Your task to perform on an android device: turn off notifications settings in the gmail app Image 0: 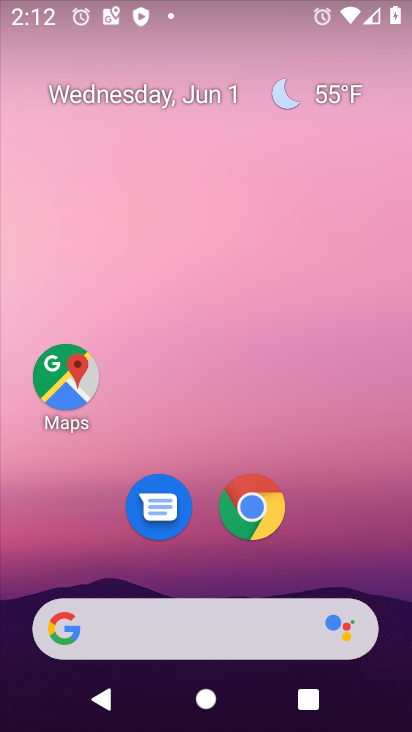
Step 0: press home button
Your task to perform on an android device: turn off notifications settings in the gmail app Image 1: 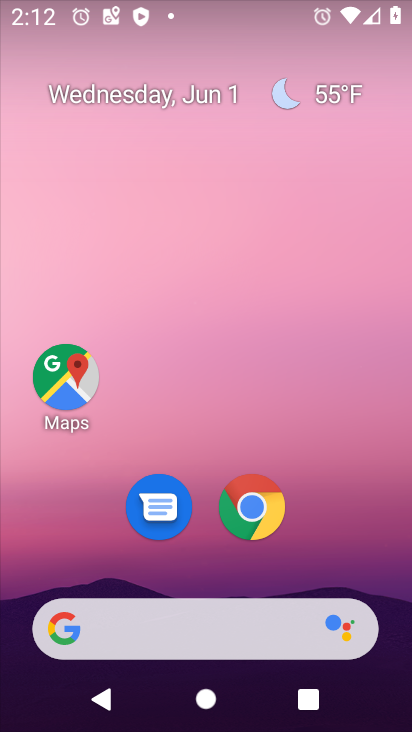
Step 1: drag from (371, 586) to (335, 3)
Your task to perform on an android device: turn off notifications settings in the gmail app Image 2: 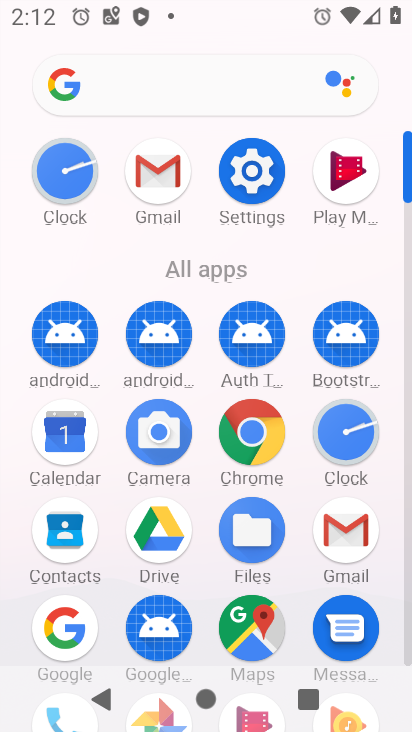
Step 2: click (159, 178)
Your task to perform on an android device: turn off notifications settings in the gmail app Image 3: 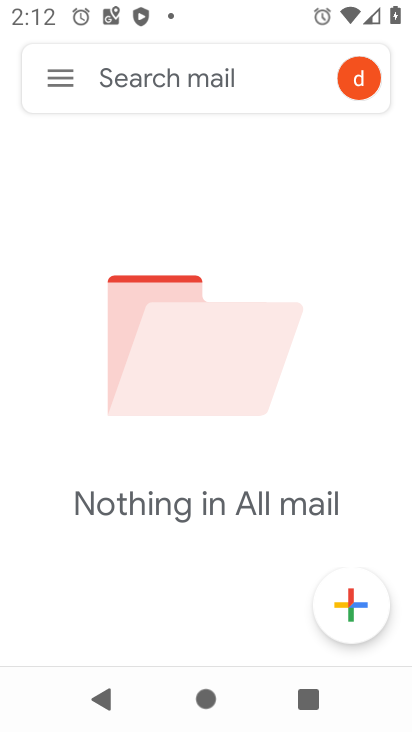
Step 3: click (57, 80)
Your task to perform on an android device: turn off notifications settings in the gmail app Image 4: 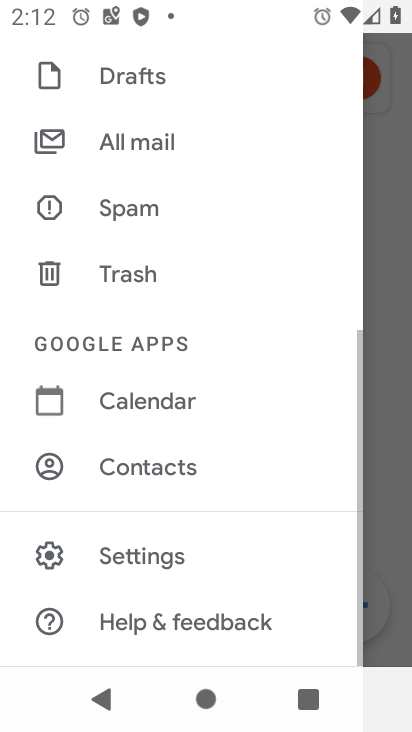
Step 4: click (163, 563)
Your task to perform on an android device: turn off notifications settings in the gmail app Image 5: 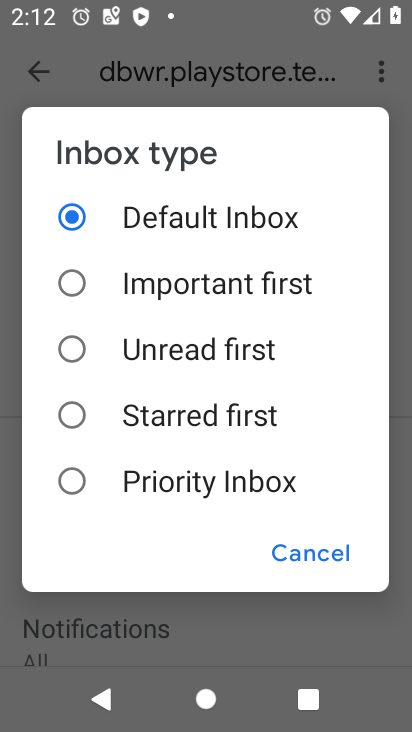
Step 5: click (307, 553)
Your task to perform on an android device: turn off notifications settings in the gmail app Image 6: 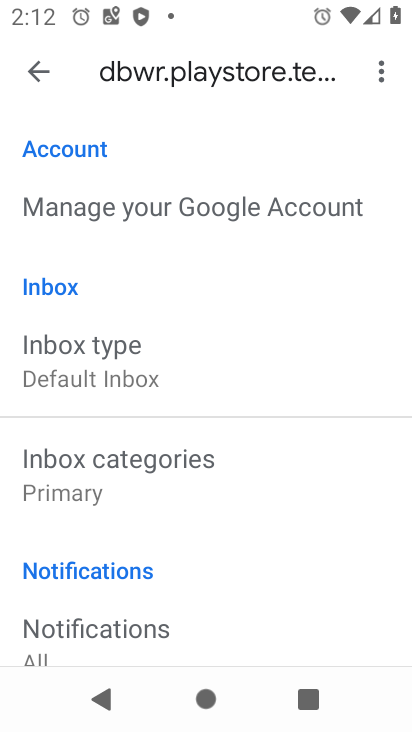
Step 6: click (36, 74)
Your task to perform on an android device: turn off notifications settings in the gmail app Image 7: 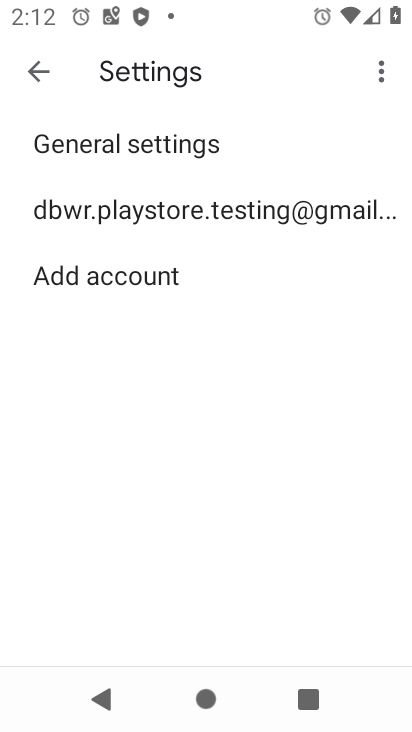
Step 7: click (61, 139)
Your task to perform on an android device: turn off notifications settings in the gmail app Image 8: 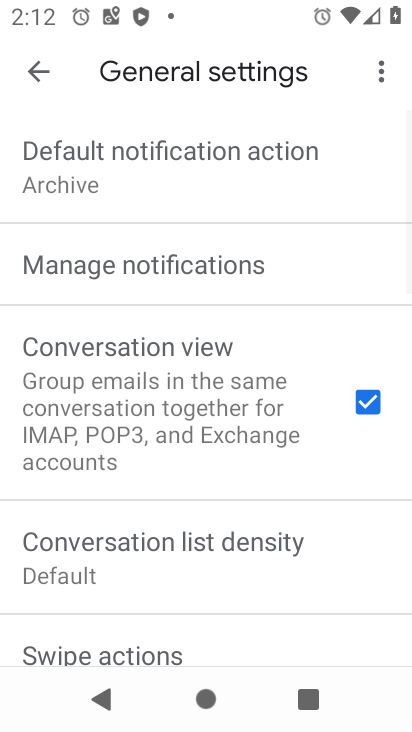
Step 8: click (125, 270)
Your task to perform on an android device: turn off notifications settings in the gmail app Image 9: 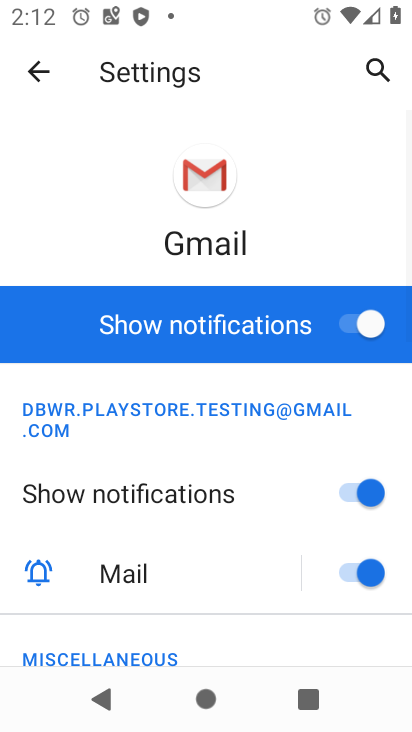
Step 9: click (376, 324)
Your task to perform on an android device: turn off notifications settings in the gmail app Image 10: 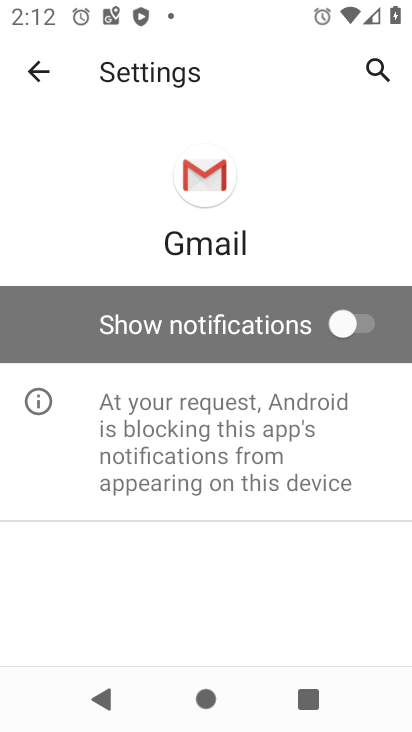
Step 10: task complete